Your task to perform on an android device: Is it going to rain today? Image 0: 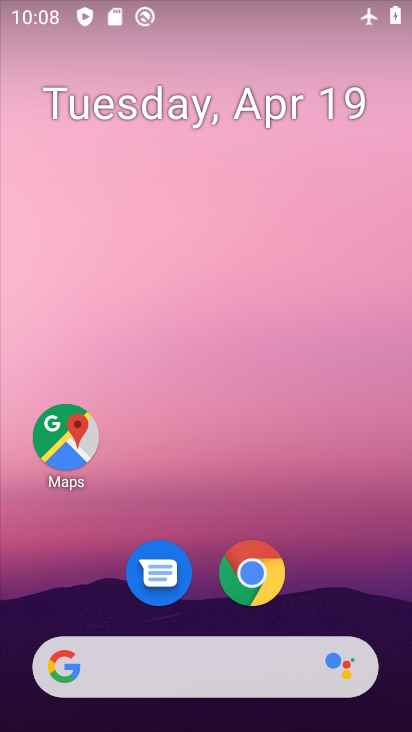
Step 0: click (213, 668)
Your task to perform on an android device: Is it going to rain today? Image 1: 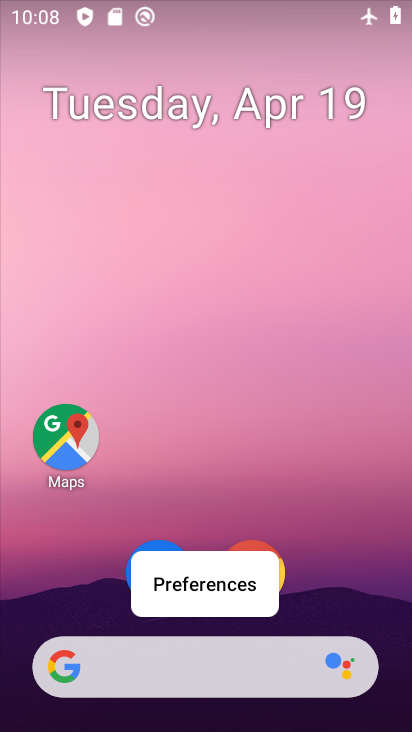
Step 1: click (243, 655)
Your task to perform on an android device: Is it going to rain today? Image 2: 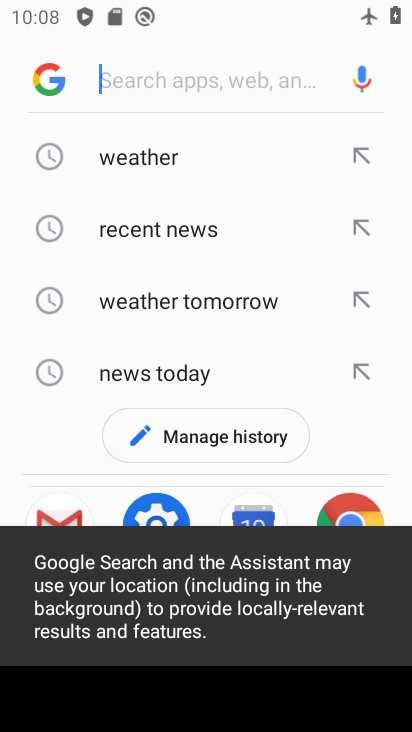
Step 2: click (143, 157)
Your task to perform on an android device: Is it going to rain today? Image 3: 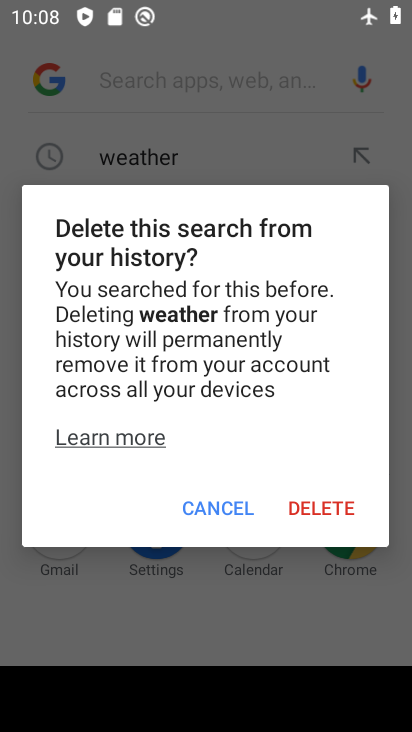
Step 3: click (238, 503)
Your task to perform on an android device: Is it going to rain today? Image 4: 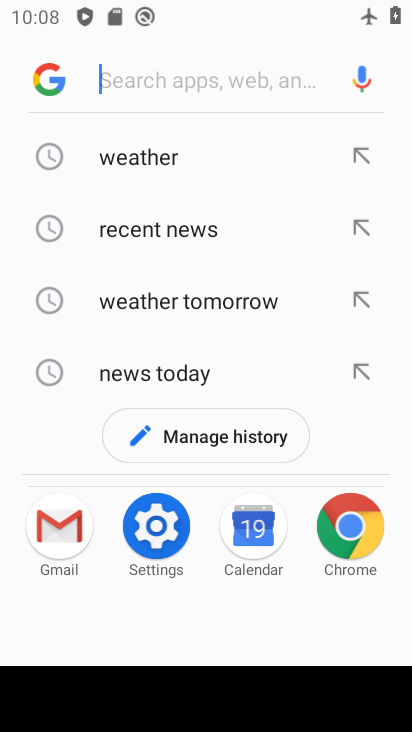
Step 4: click (169, 159)
Your task to perform on an android device: Is it going to rain today? Image 5: 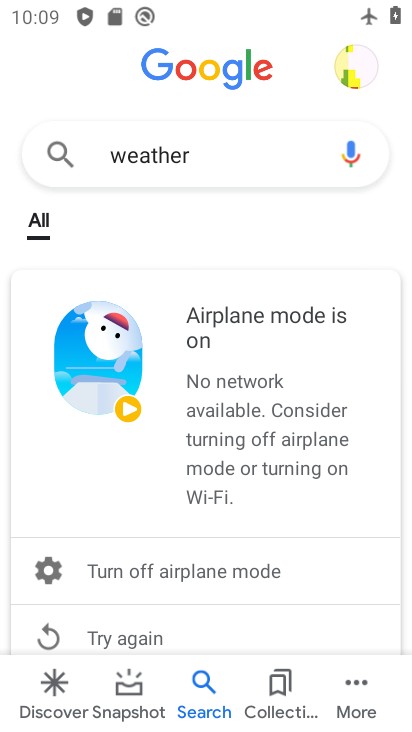
Step 5: task complete